Your task to perform on an android device: manage bookmarks in the chrome app Image 0: 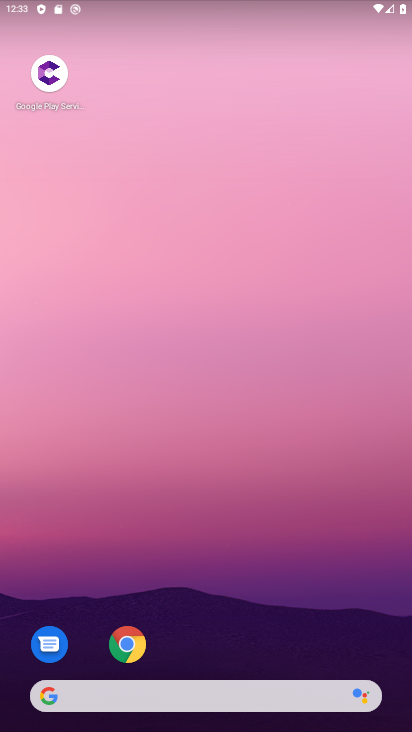
Step 0: drag from (275, 630) to (149, 84)
Your task to perform on an android device: manage bookmarks in the chrome app Image 1: 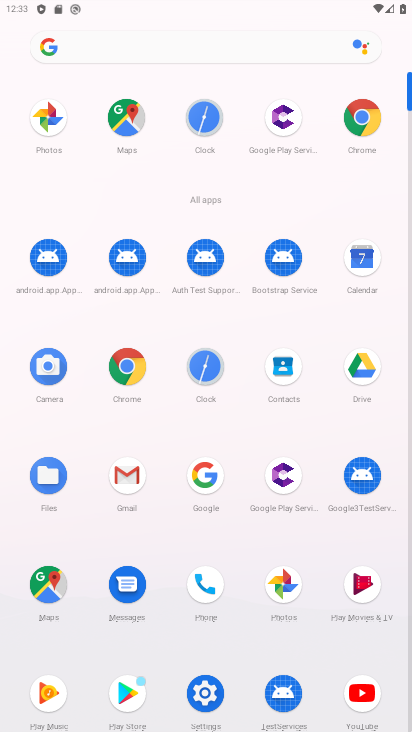
Step 1: click (370, 126)
Your task to perform on an android device: manage bookmarks in the chrome app Image 2: 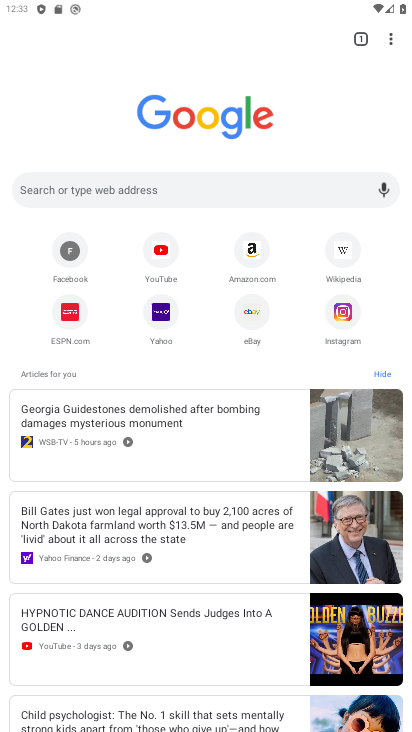
Step 2: click (390, 45)
Your task to perform on an android device: manage bookmarks in the chrome app Image 3: 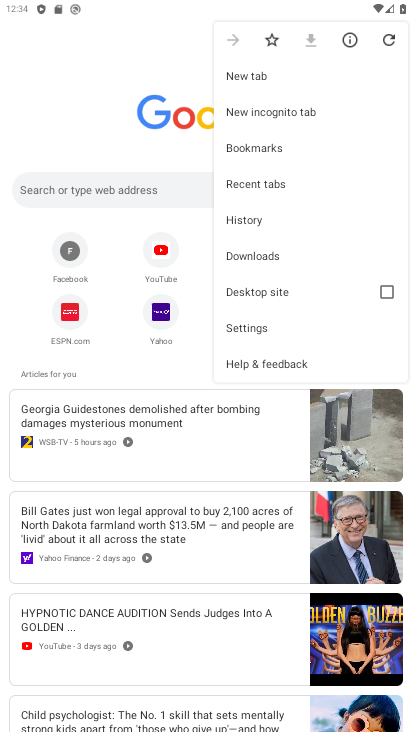
Step 3: click (277, 150)
Your task to perform on an android device: manage bookmarks in the chrome app Image 4: 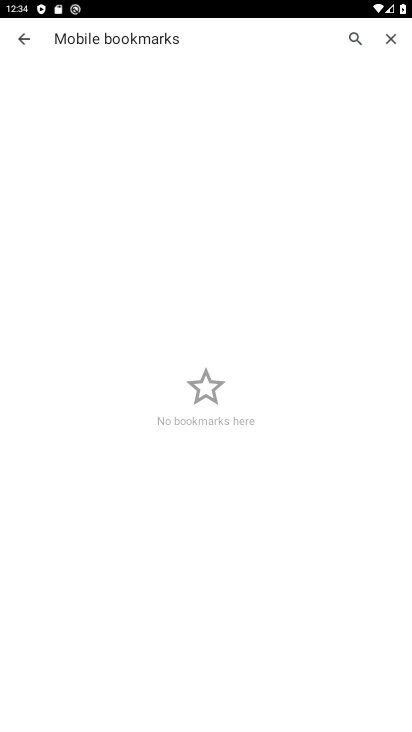
Step 4: task complete